Your task to perform on an android device: open chrome and create a bookmark for the current page Image 0: 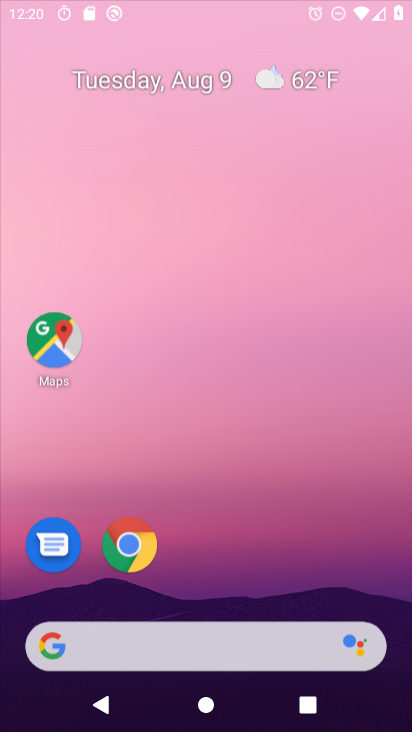
Step 0: press home button
Your task to perform on an android device: open chrome and create a bookmark for the current page Image 1: 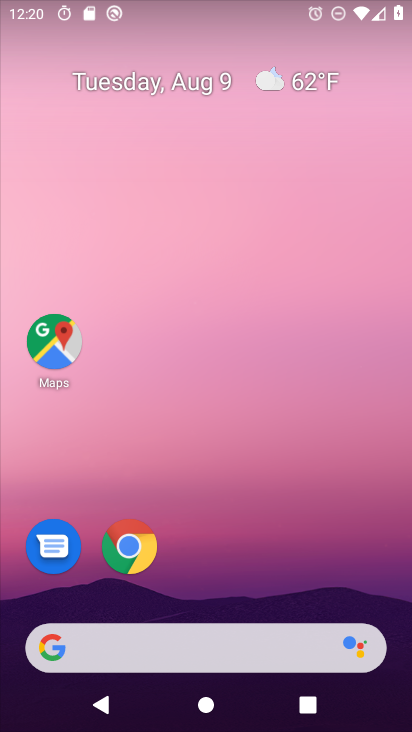
Step 1: click (127, 543)
Your task to perform on an android device: open chrome and create a bookmark for the current page Image 2: 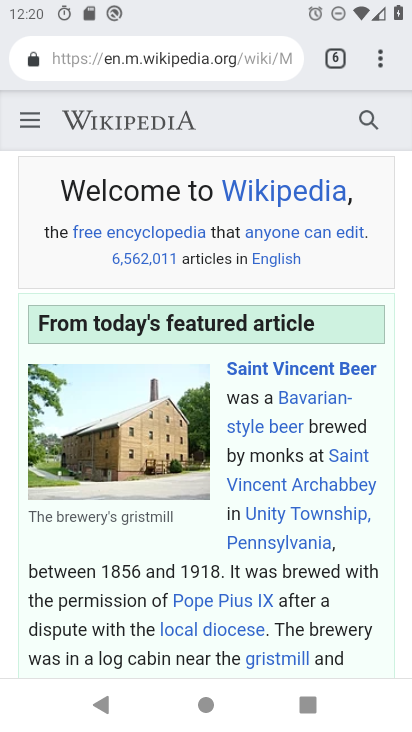
Step 2: click (380, 56)
Your task to perform on an android device: open chrome and create a bookmark for the current page Image 3: 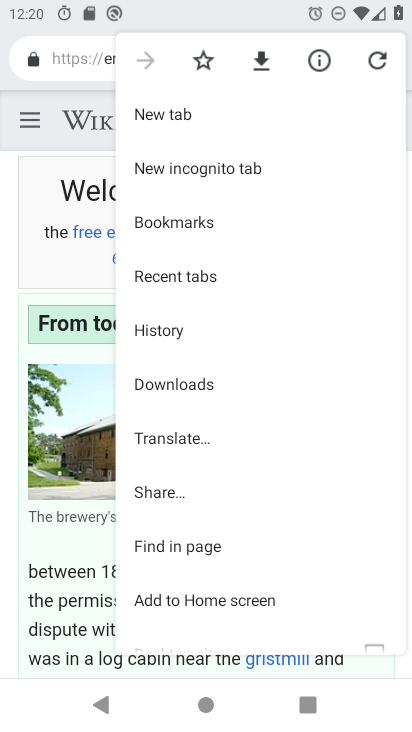
Step 3: click (203, 61)
Your task to perform on an android device: open chrome and create a bookmark for the current page Image 4: 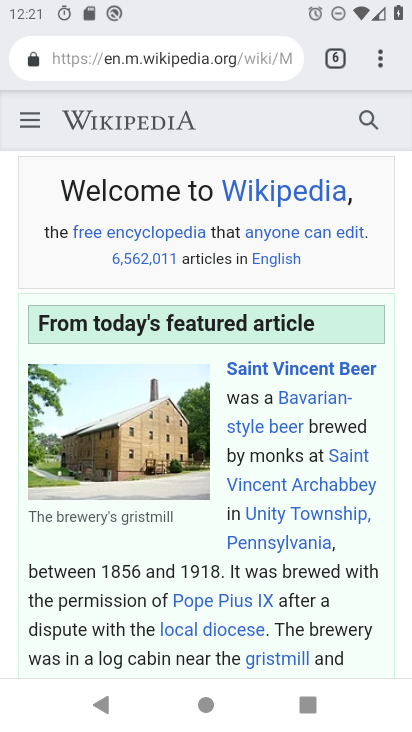
Step 4: task complete